Your task to perform on an android device: stop showing notifications on the lock screen Image 0: 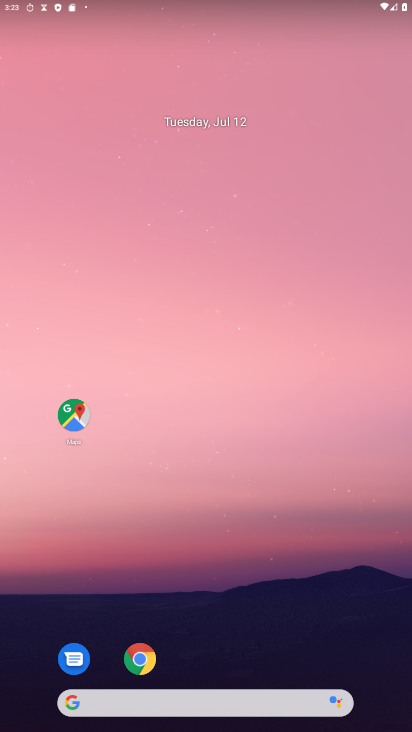
Step 0: drag from (343, 641) to (245, 80)
Your task to perform on an android device: stop showing notifications on the lock screen Image 1: 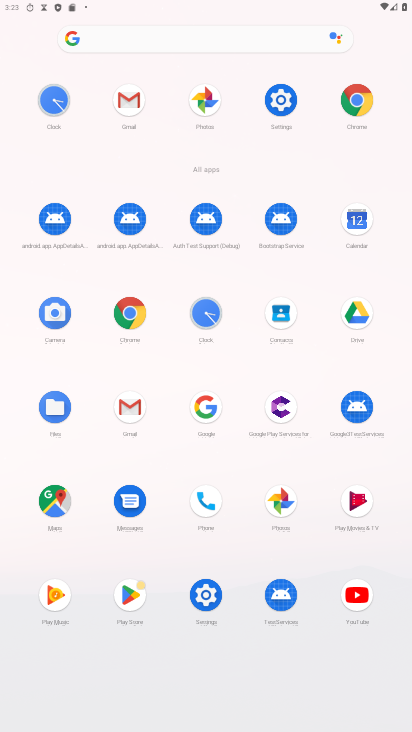
Step 1: click (284, 99)
Your task to perform on an android device: stop showing notifications on the lock screen Image 2: 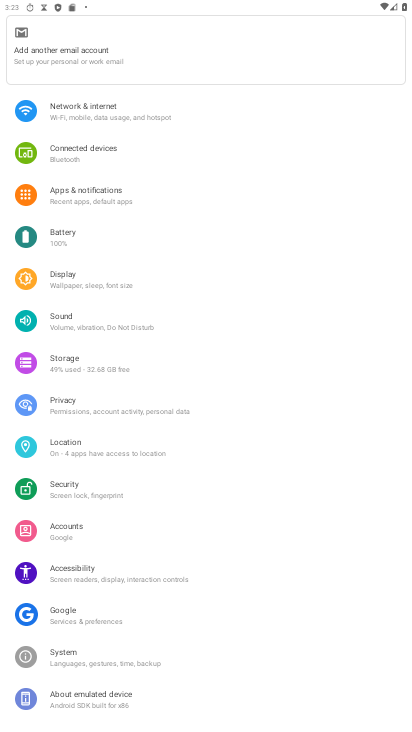
Step 2: click (119, 202)
Your task to perform on an android device: stop showing notifications on the lock screen Image 3: 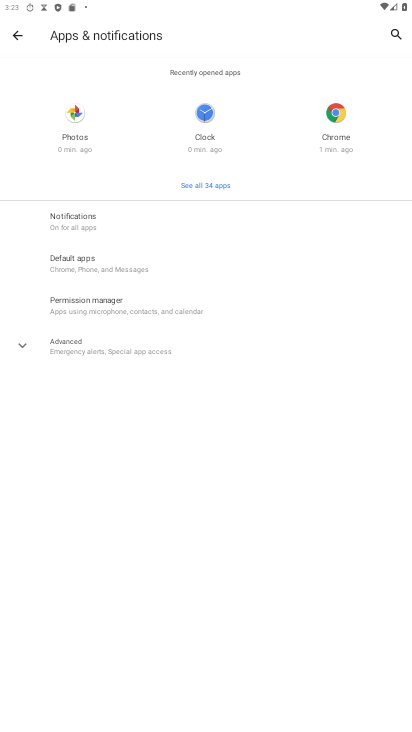
Step 3: click (145, 221)
Your task to perform on an android device: stop showing notifications on the lock screen Image 4: 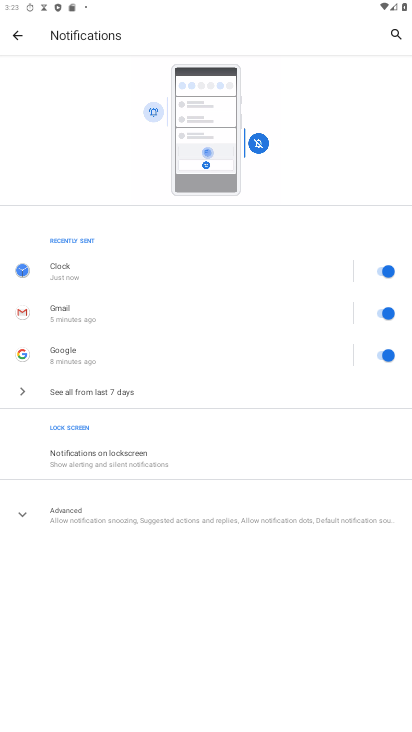
Step 4: click (229, 462)
Your task to perform on an android device: stop showing notifications on the lock screen Image 5: 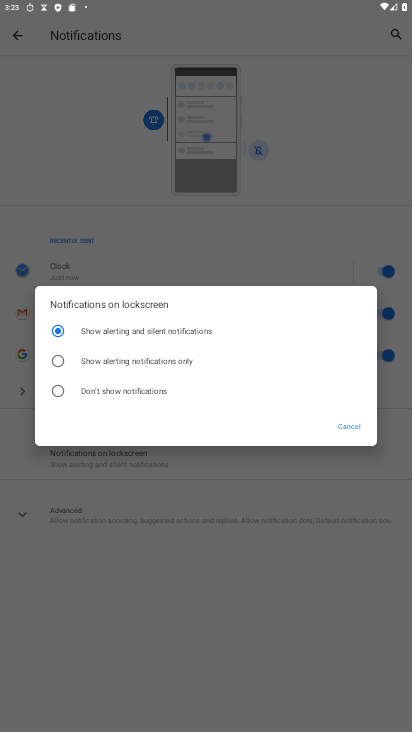
Step 5: click (146, 384)
Your task to perform on an android device: stop showing notifications on the lock screen Image 6: 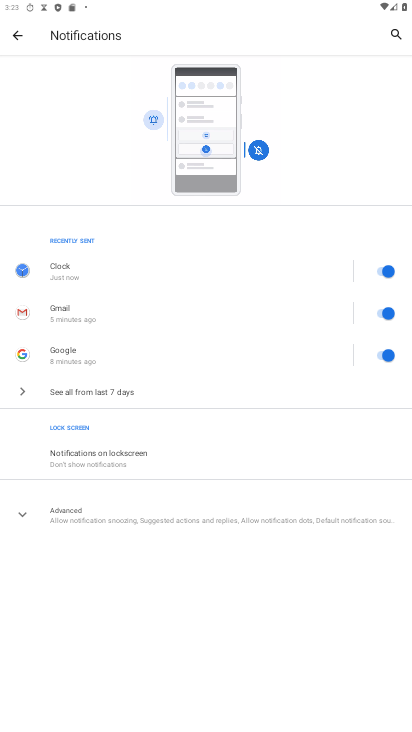
Step 6: task complete